Your task to perform on an android device: see creations saved in the google photos Image 0: 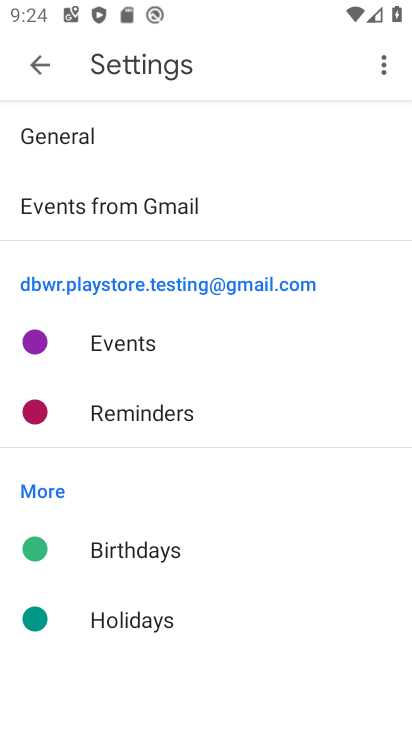
Step 0: press home button
Your task to perform on an android device: see creations saved in the google photos Image 1: 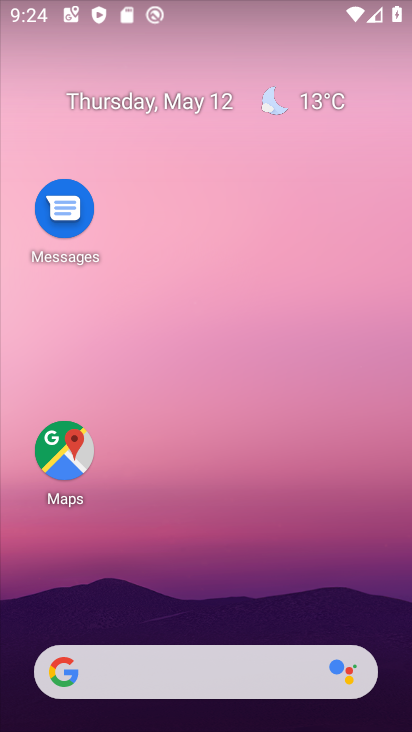
Step 1: drag from (155, 633) to (56, 18)
Your task to perform on an android device: see creations saved in the google photos Image 2: 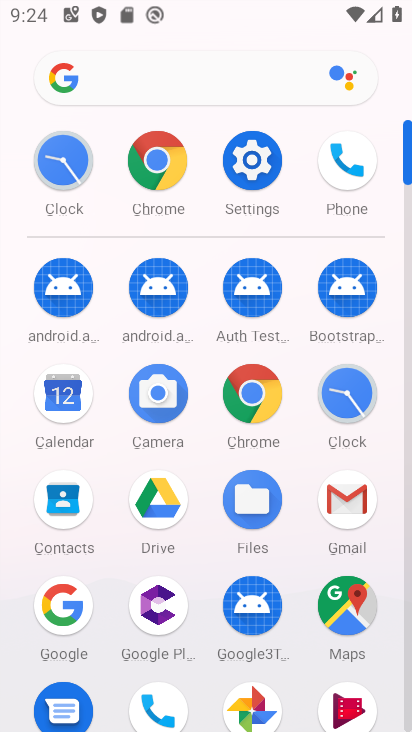
Step 2: click (241, 696)
Your task to perform on an android device: see creations saved in the google photos Image 3: 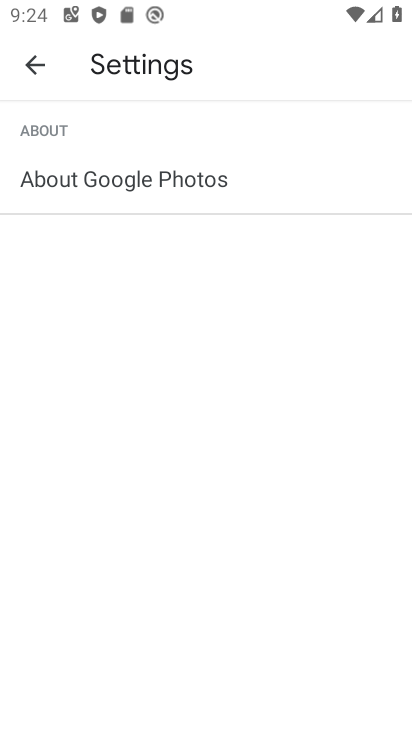
Step 3: click (18, 73)
Your task to perform on an android device: see creations saved in the google photos Image 4: 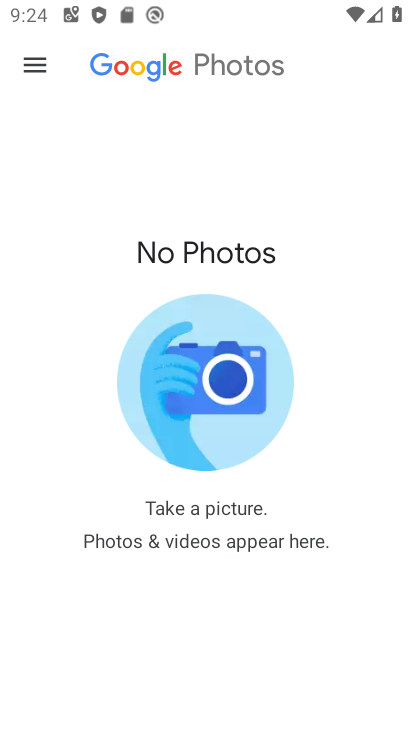
Step 4: click (28, 50)
Your task to perform on an android device: see creations saved in the google photos Image 5: 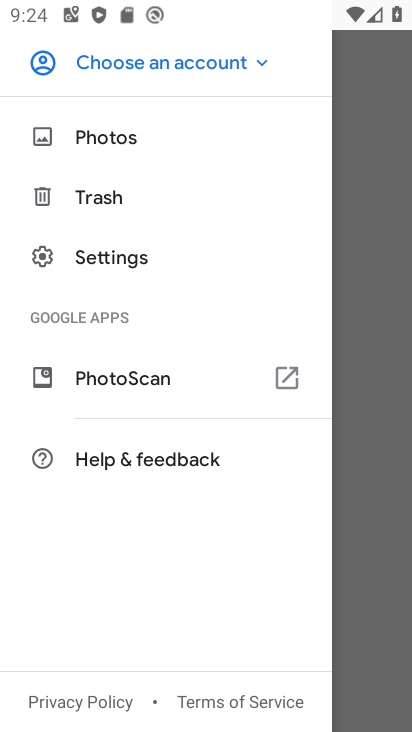
Step 5: click (109, 64)
Your task to perform on an android device: see creations saved in the google photos Image 6: 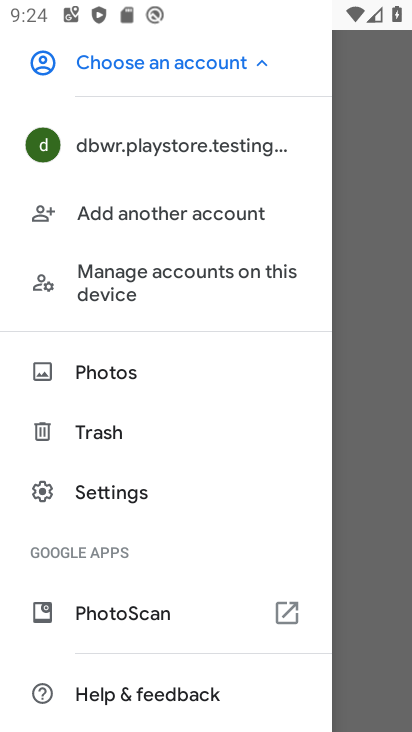
Step 6: click (120, 176)
Your task to perform on an android device: see creations saved in the google photos Image 7: 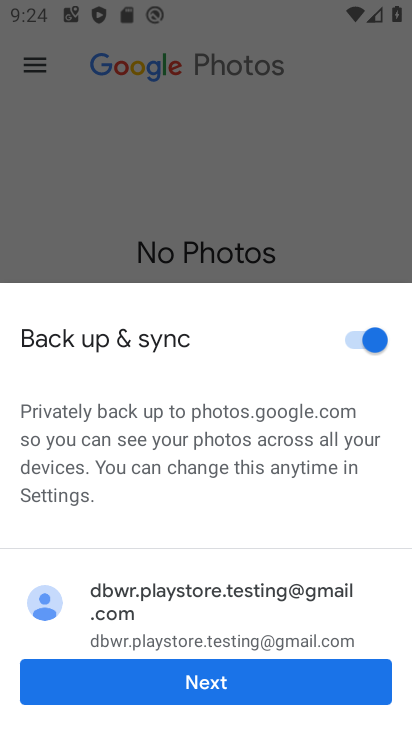
Step 7: click (219, 685)
Your task to perform on an android device: see creations saved in the google photos Image 8: 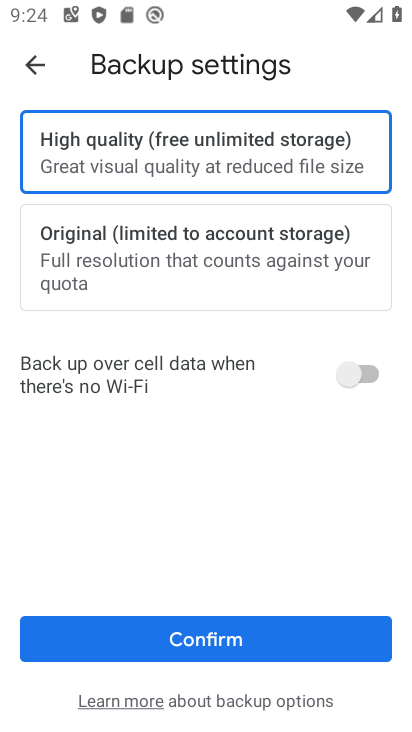
Step 8: click (236, 623)
Your task to perform on an android device: see creations saved in the google photos Image 9: 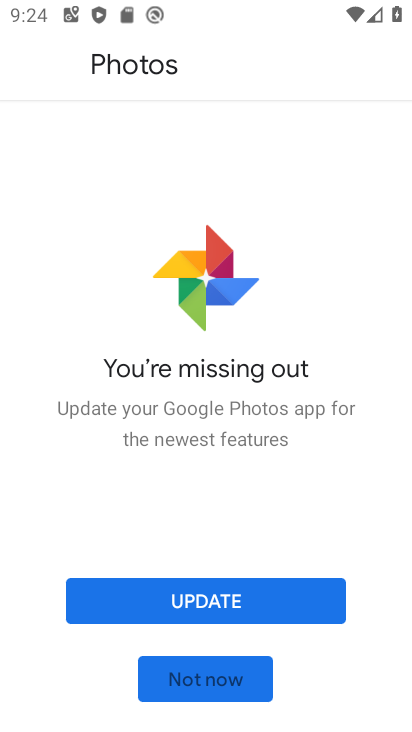
Step 9: click (189, 675)
Your task to perform on an android device: see creations saved in the google photos Image 10: 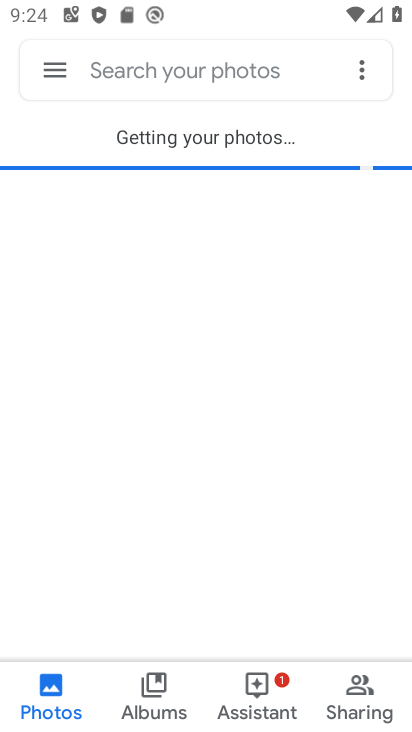
Step 10: click (143, 65)
Your task to perform on an android device: see creations saved in the google photos Image 11: 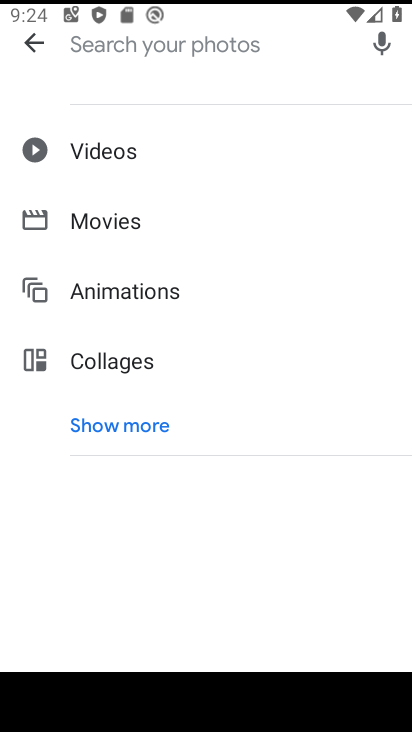
Step 11: click (117, 430)
Your task to perform on an android device: see creations saved in the google photos Image 12: 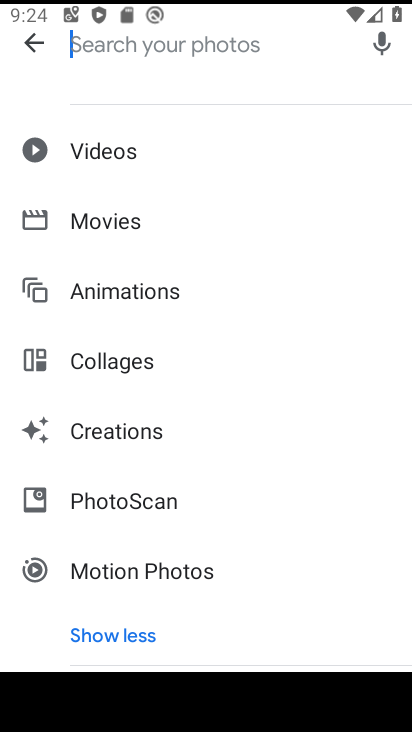
Step 12: click (127, 435)
Your task to perform on an android device: see creations saved in the google photos Image 13: 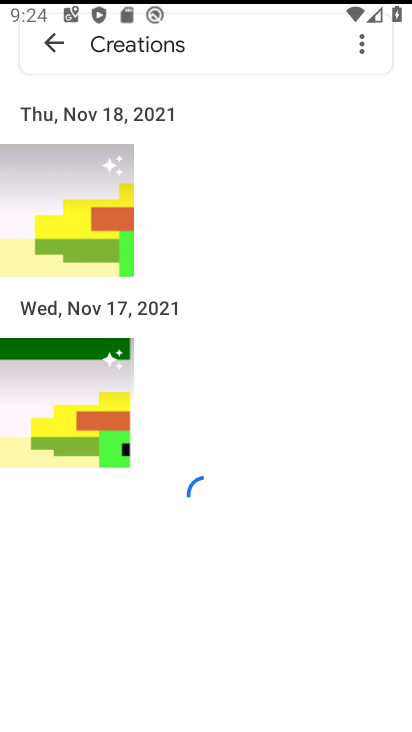
Step 13: task complete